Your task to perform on an android device: Open the phone app and click the voicemail tab. Image 0: 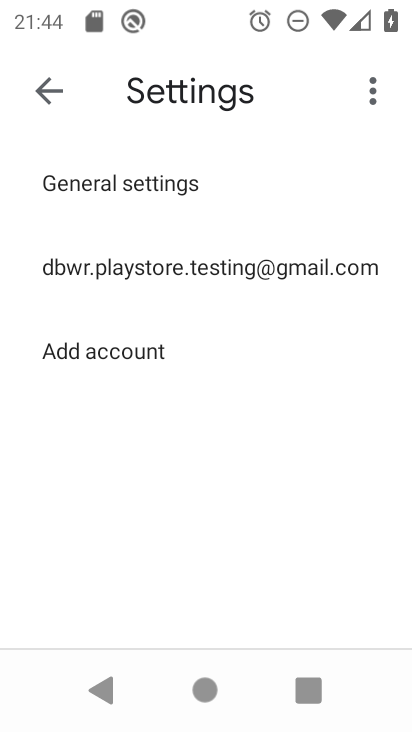
Step 0: press home button
Your task to perform on an android device: Open the phone app and click the voicemail tab. Image 1: 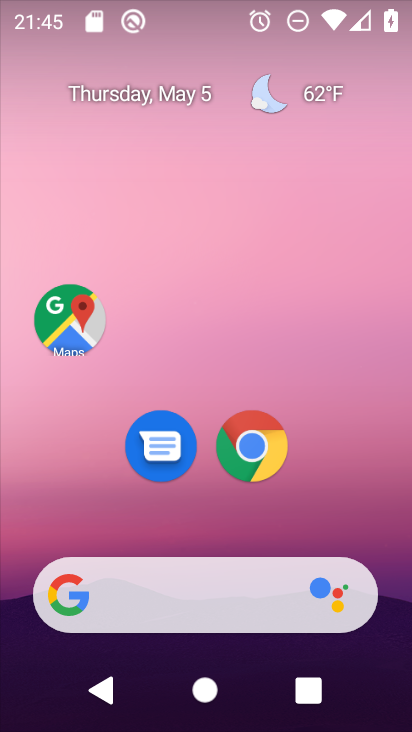
Step 1: drag from (247, 644) to (218, 218)
Your task to perform on an android device: Open the phone app and click the voicemail tab. Image 2: 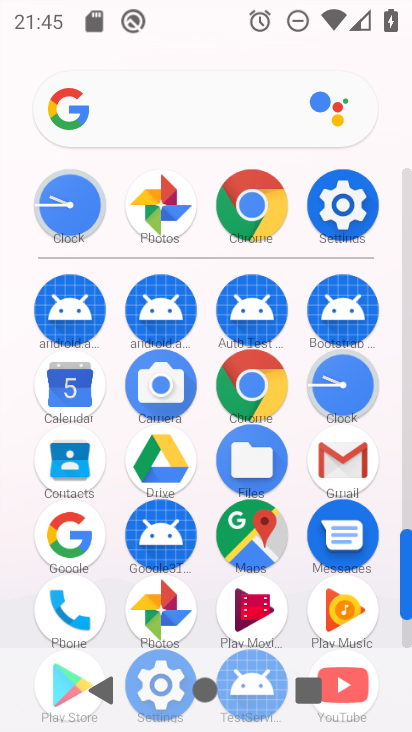
Step 2: click (61, 597)
Your task to perform on an android device: Open the phone app and click the voicemail tab. Image 3: 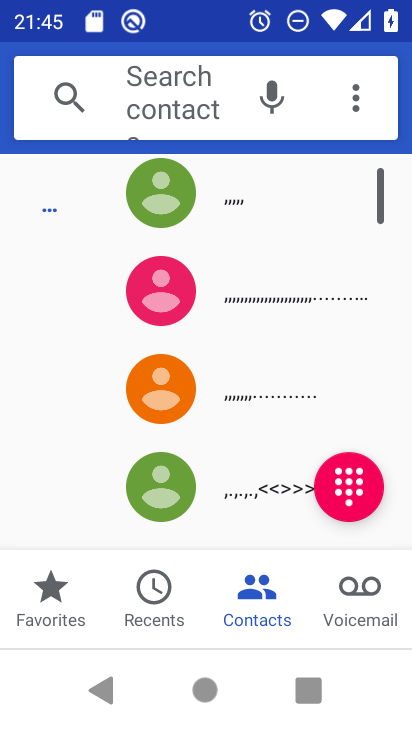
Step 3: click (336, 599)
Your task to perform on an android device: Open the phone app and click the voicemail tab. Image 4: 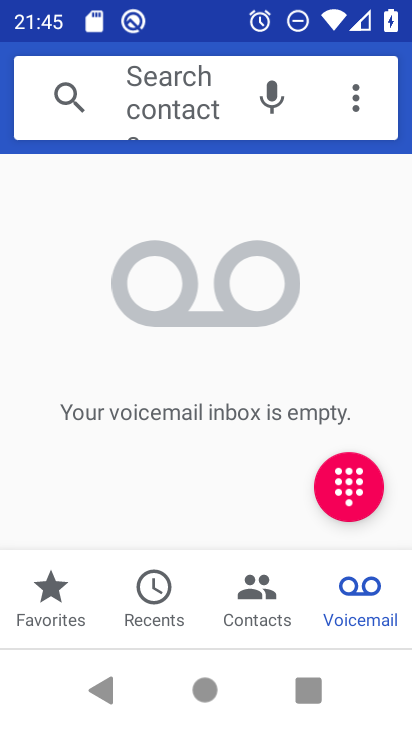
Step 4: task complete